Your task to perform on an android device: turn off improve location accuracy Image 0: 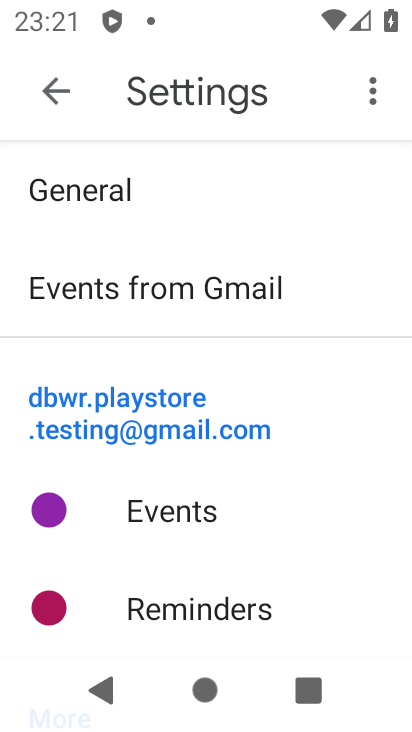
Step 0: press back button
Your task to perform on an android device: turn off improve location accuracy Image 1: 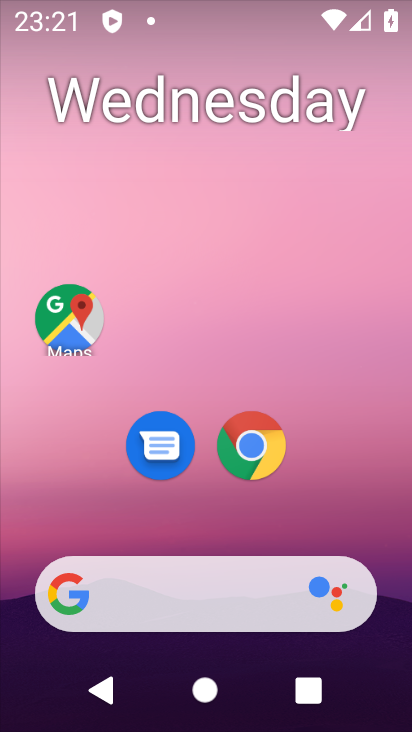
Step 1: drag from (167, 499) to (262, 132)
Your task to perform on an android device: turn off improve location accuracy Image 2: 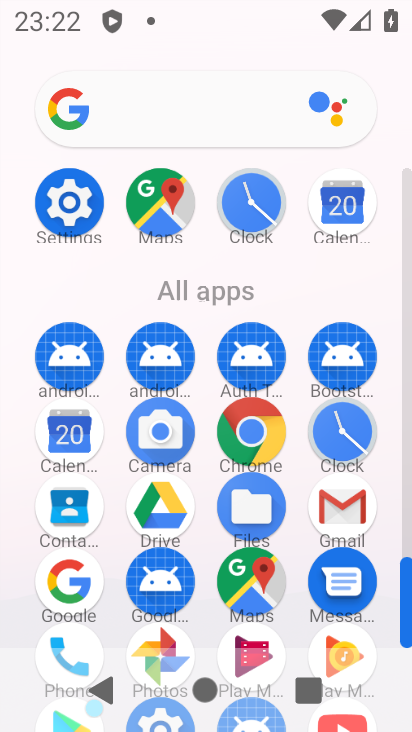
Step 2: click (65, 198)
Your task to perform on an android device: turn off improve location accuracy Image 3: 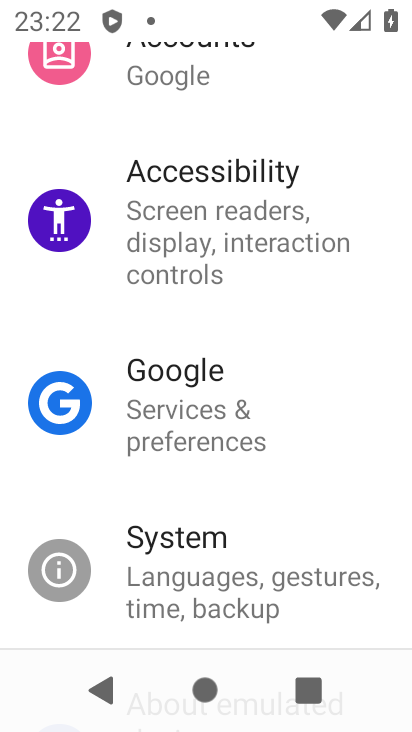
Step 3: drag from (189, 561) to (240, 136)
Your task to perform on an android device: turn off improve location accuracy Image 4: 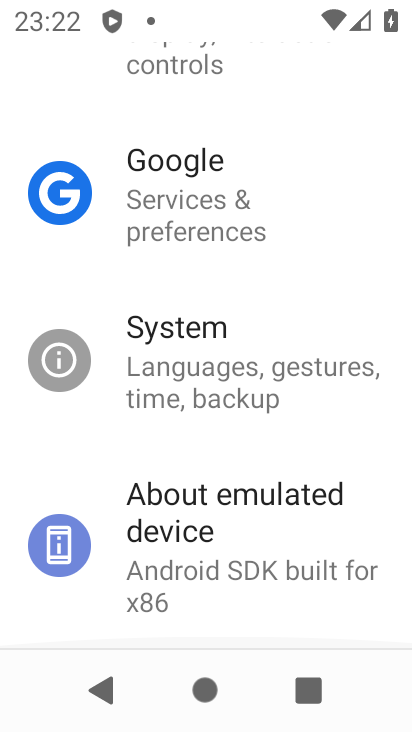
Step 4: drag from (228, 159) to (199, 618)
Your task to perform on an android device: turn off improve location accuracy Image 5: 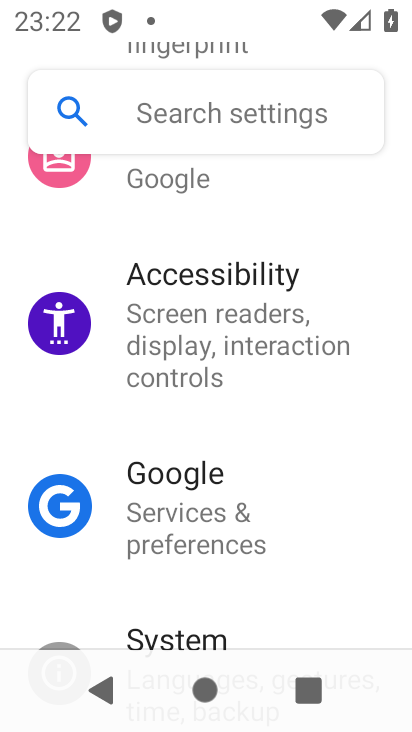
Step 5: drag from (204, 170) to (184, 633)
Your task to perform on an android device: turn off improve location accuracy Image 6: 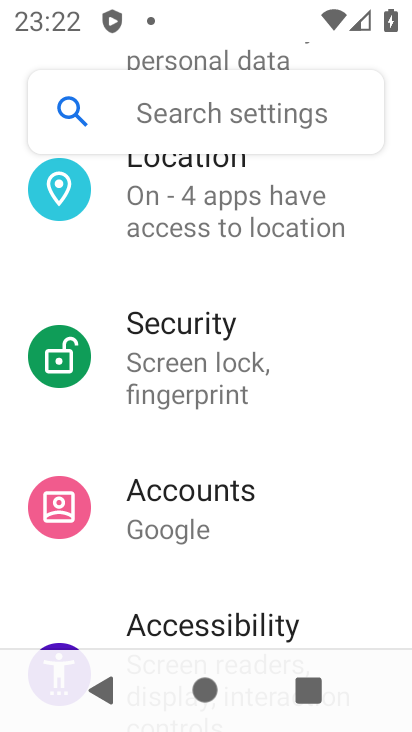
Step 6: click (203, 195)
Your task to perform on an android device: turn off improve location accuracy Image 7: 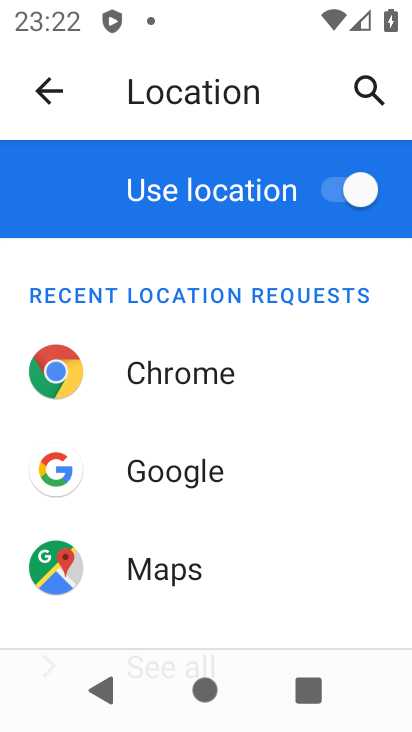
Step 7: drag from (265, 609) to (265, 70)
Your task to perform on an android device: turn off improve location accuracy Image 8: 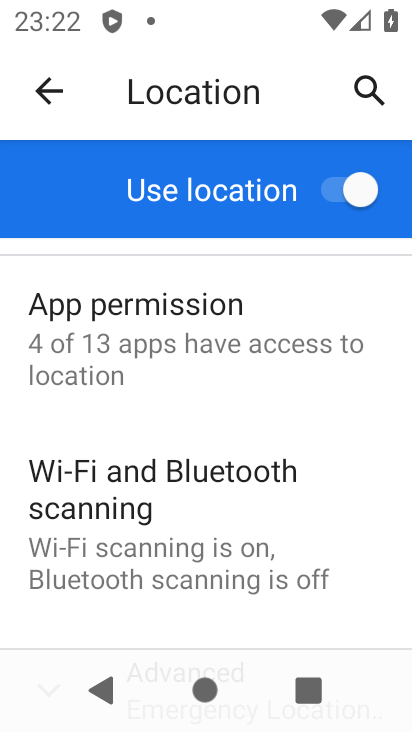
Step 8: drag from (185, 569) to (259, 95)
Your task to perform on an android device: turn off improve location accuracy Image 9: 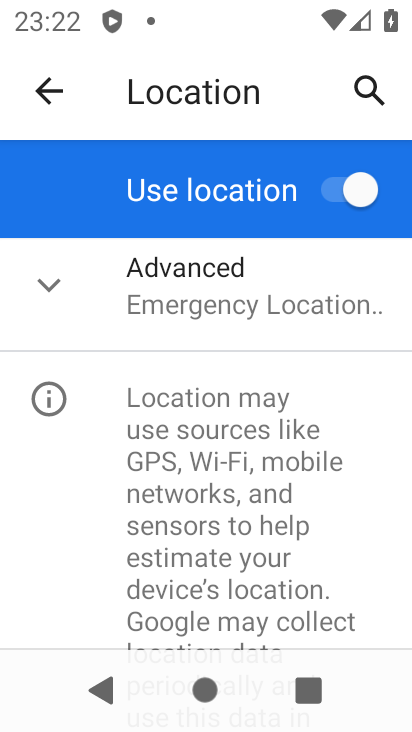
Step 9: click (214, 292)
Your task to perform on an android device: turn off improve location accuracy Image 10: 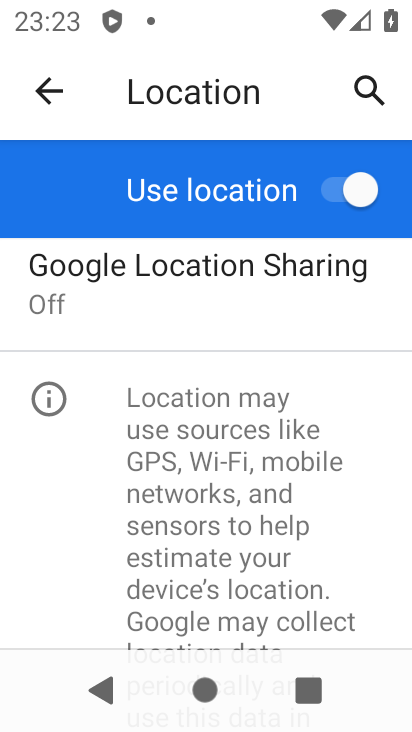
Step 10: drag from (228, 531) to (299, 28)
Your task to perform on an android device: turn off improve location accuracy Image 11: 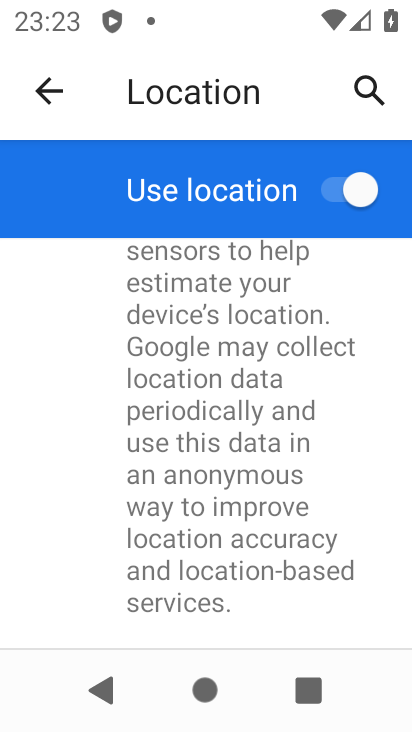
Step 11: drag from (245, 283) to (211, 692)
Your task to perform on an android device: turn off improve location accuracy Image 12: 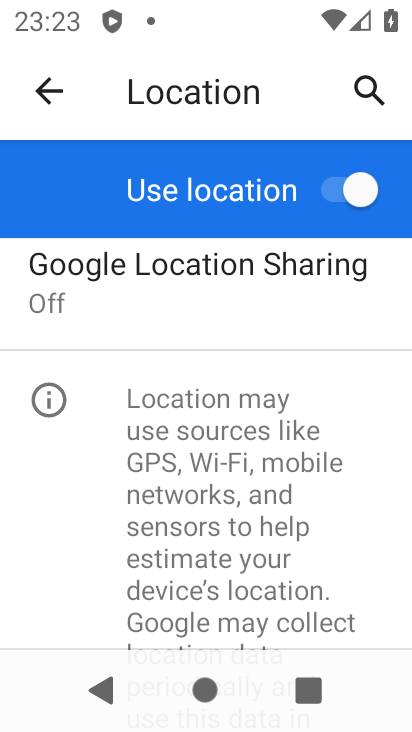
Step 12: drag from (218, 303) to (216, 633)
Your task to perform on an android device: turn off improve location accuracy Image 13: 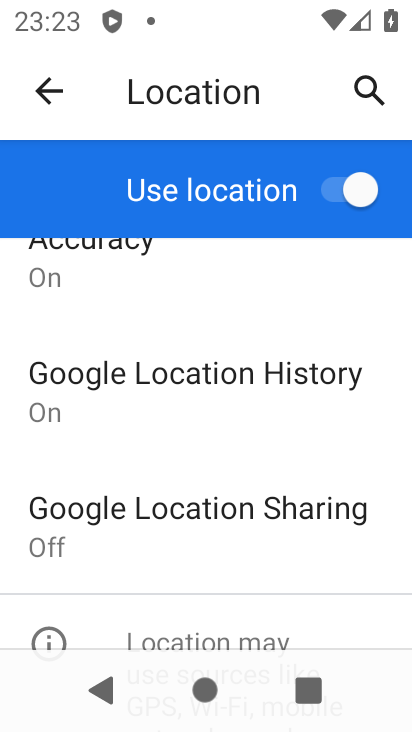
Step 13: drag from (215, 314) to (214, 580)
Your task to perform on an android device: turn off improve location accuracy Image 14: 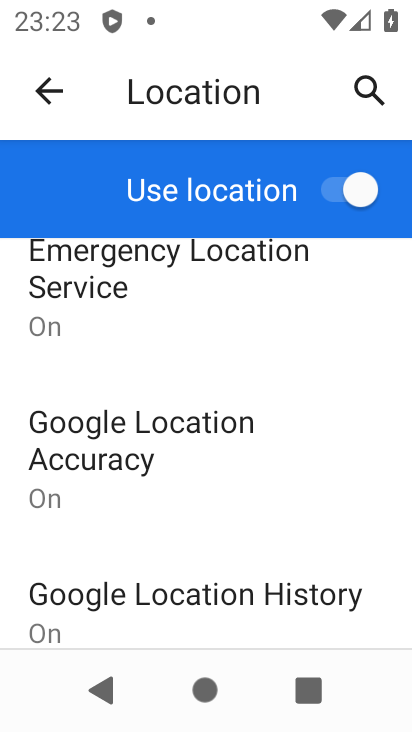
Step 14: click (198, 428)
Your task to perform on an android device: turn off improve location accuracy Image 15: 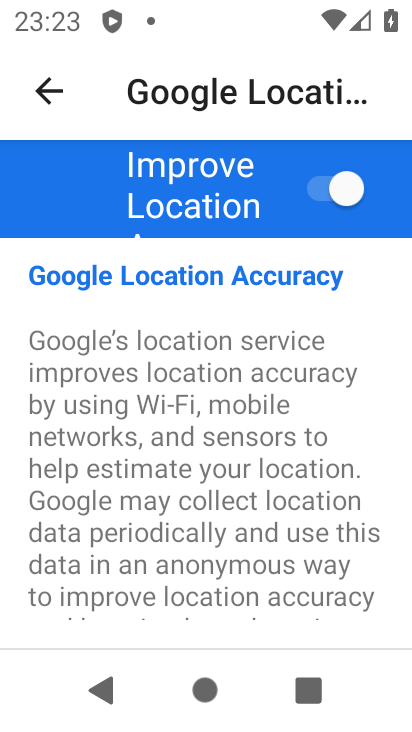
Step 15: click (334, 191)
Your task to perform on an android device: turn off improve location accuracy Image 16: 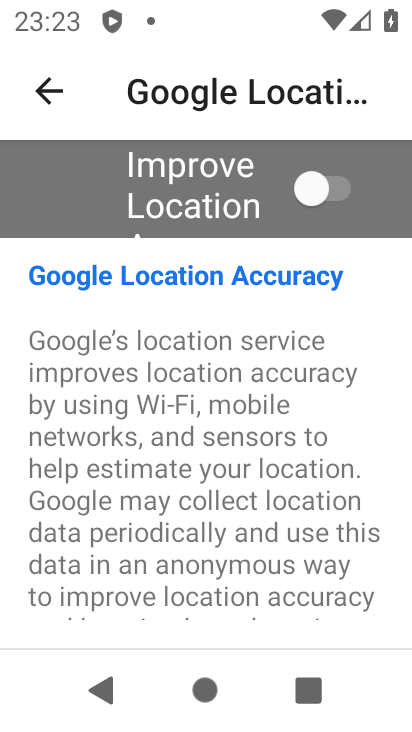
Step 16: task complete